Your task to perform on an android device: uninstall "Expedia: Hotels, Flights & Car" Image 0: 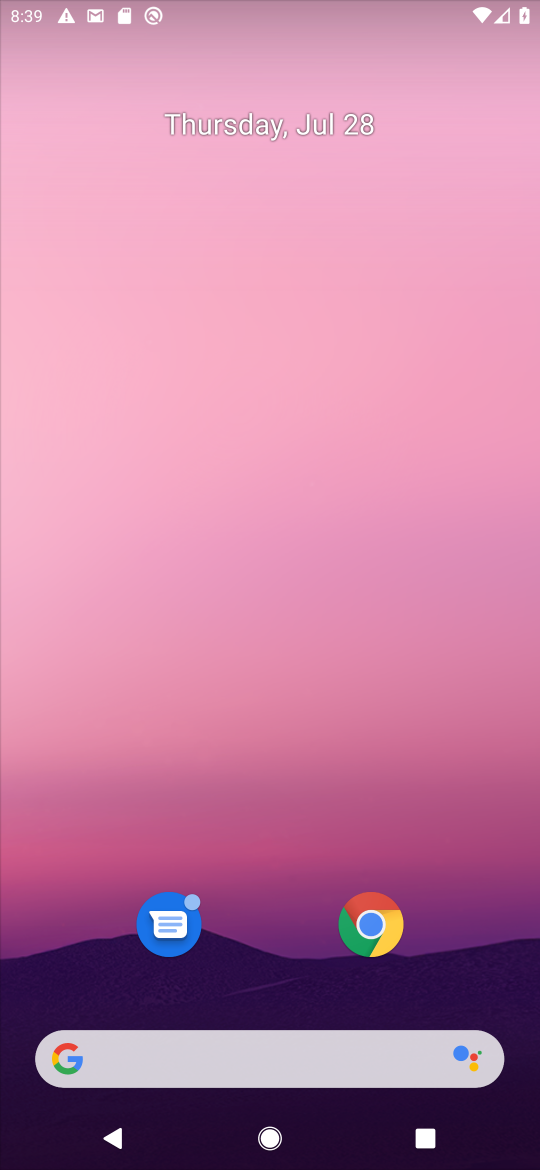
Step 0: press home button
Your task to perform on an android device: uninstall "Expedia: Hotels, Flights & Car" Image 1: 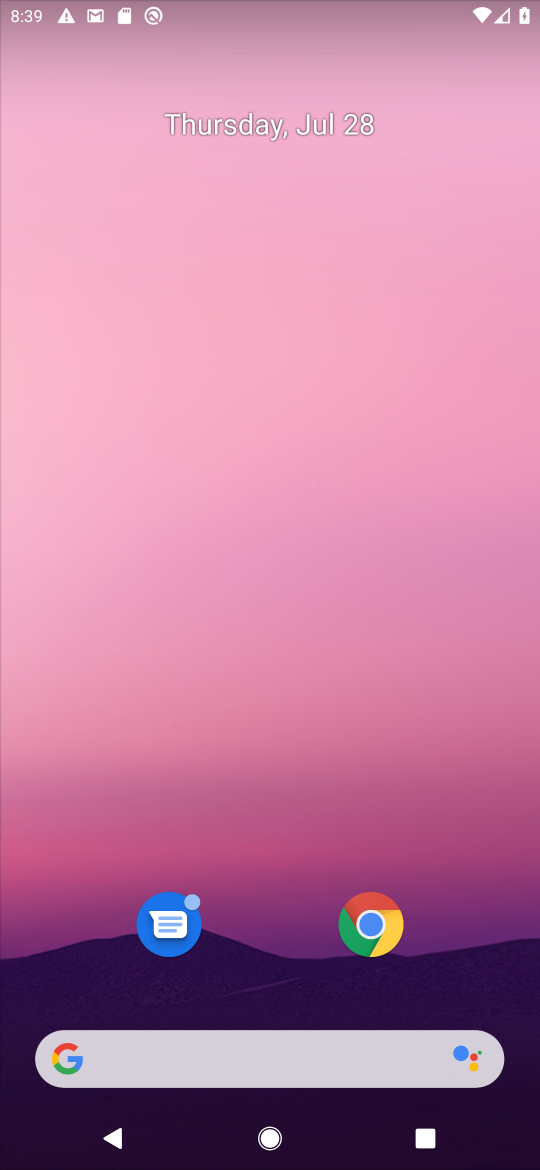
Step 1: drag from (280, 1055) to (343, 220)
Your task to perform on an android device: uninstall "Expedia: Hotels, Flights & Car" Image 2: 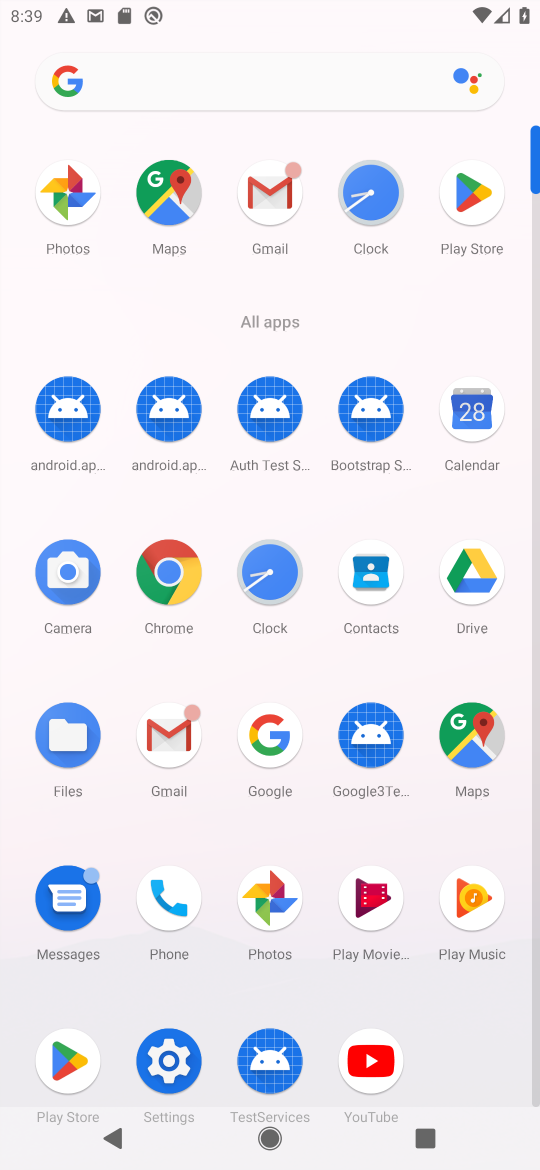
Step 2: drag from (474, 200) to (413, 701)
Your task to perform on an android device: uninstall "Expedia: Hotels, Flights & Car" Image 3: 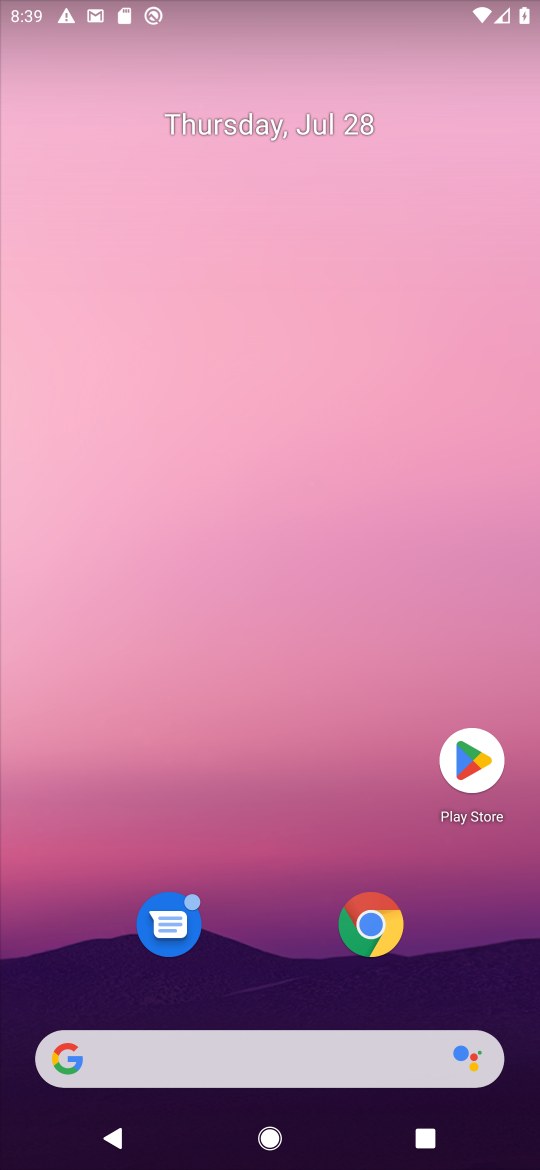
Step 3: click (475, 766)
Your task to perform on an android device: uninstall "Expedia: Hotels, Flights & Car" Image 4: 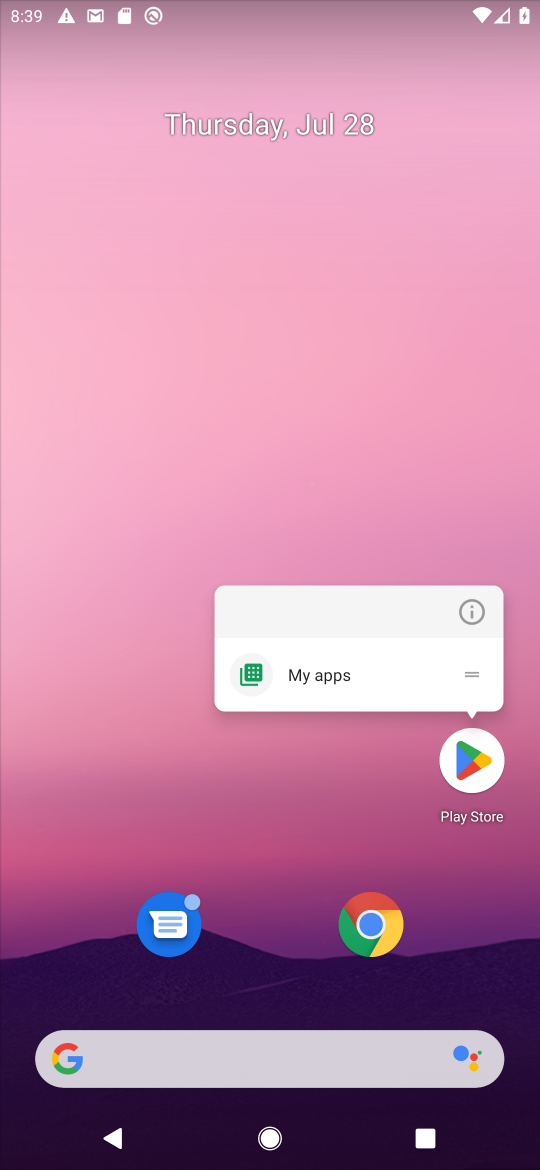
Step 4: click (466, 758)
Your task to perform on an android device: uninstall "Expedia: Hotels, Flights & Car" Image 5: 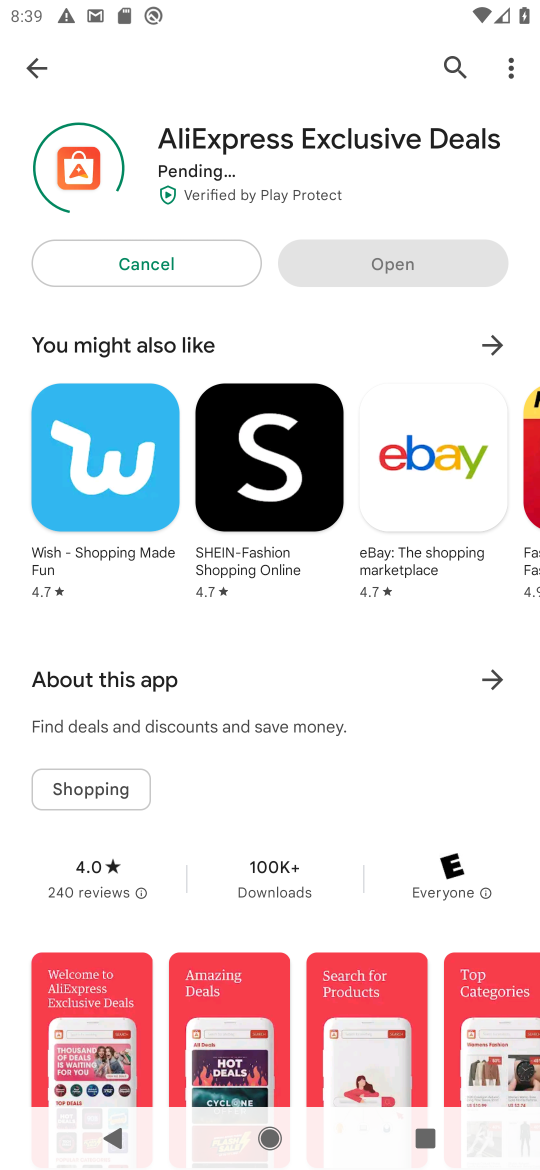
Step 5: click (453, 60)
Your task to perform on an android device: uninstall "Expedia: Hotels, Flights & Car" Image 6: 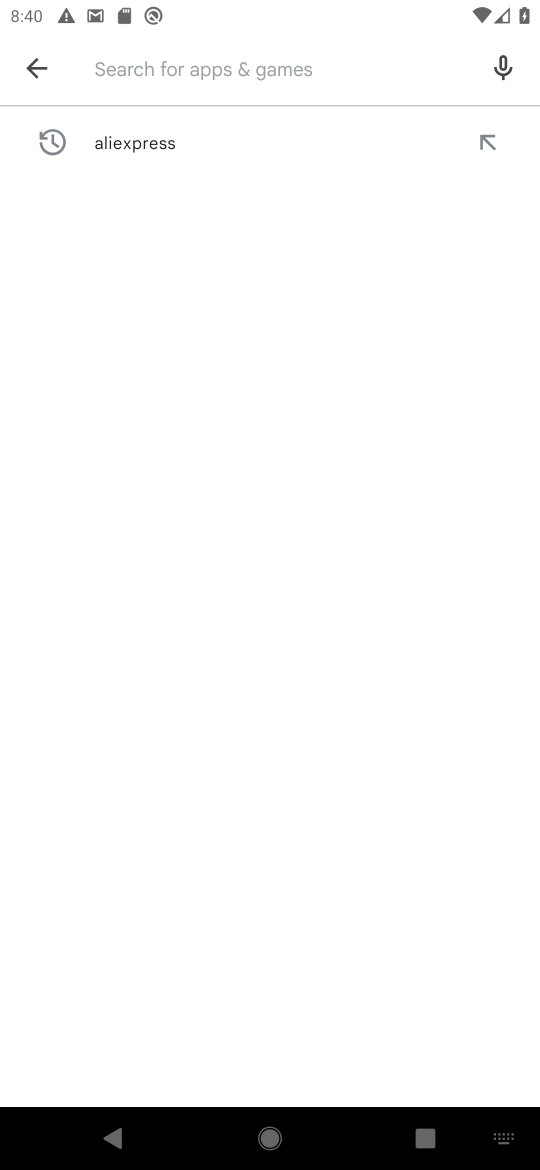
Step 6: type "Expedia: Hotels, Flights & Car"
Your task to perform on an android device: uninstall "Expedia: Hotels, Flights & Car" Image 7: 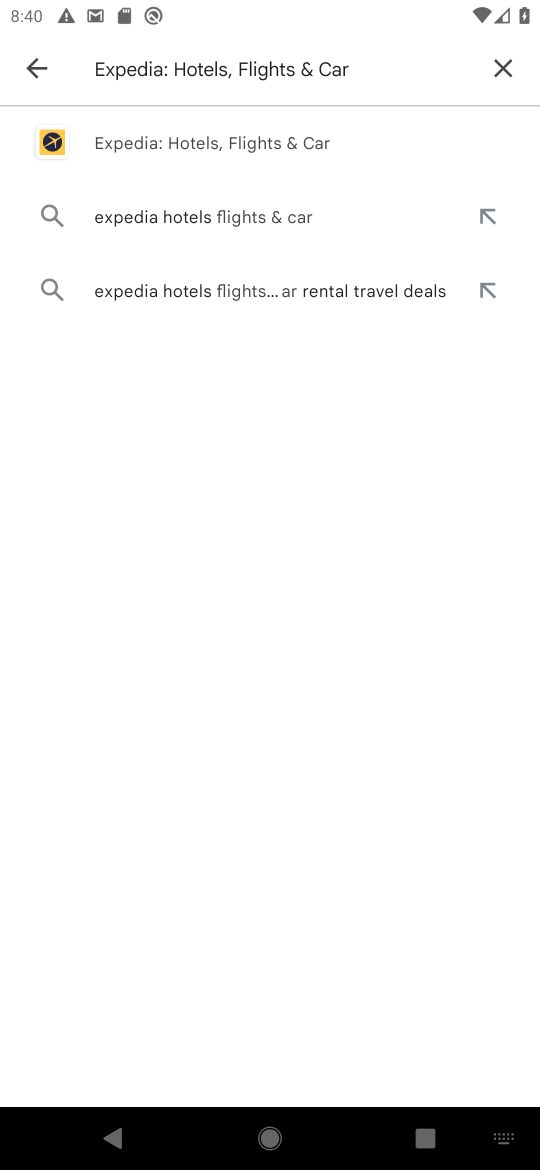
Step 7: click (149, 137)
Your task to perform on an android device: uninstall "Expedia: Hotels, Flights & Car" Image 8: 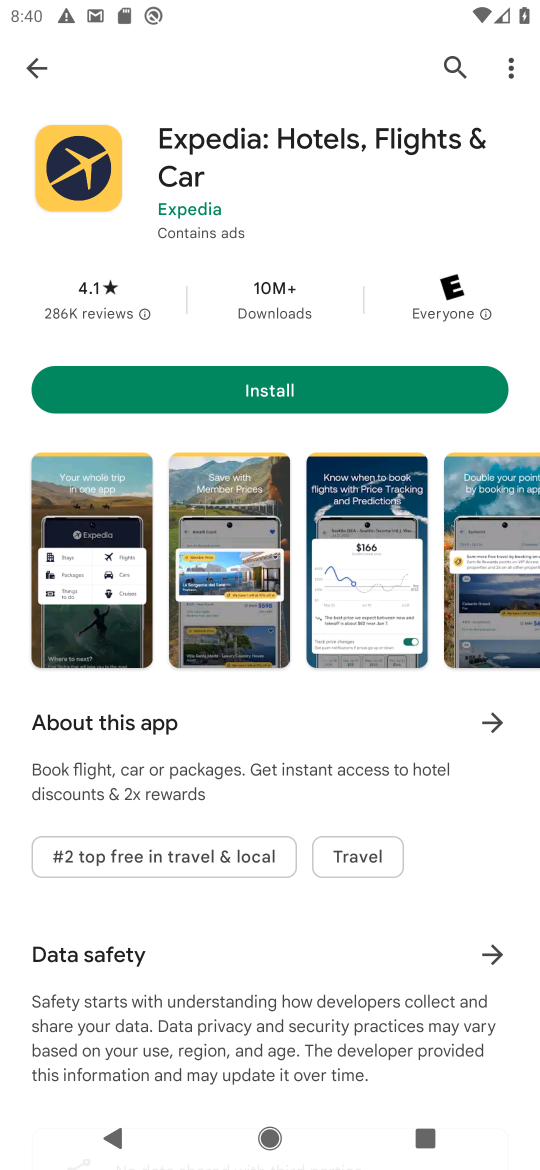
Step 8: task complete